Your task to perform on an android device: Go to Yahoo.com Image 0: 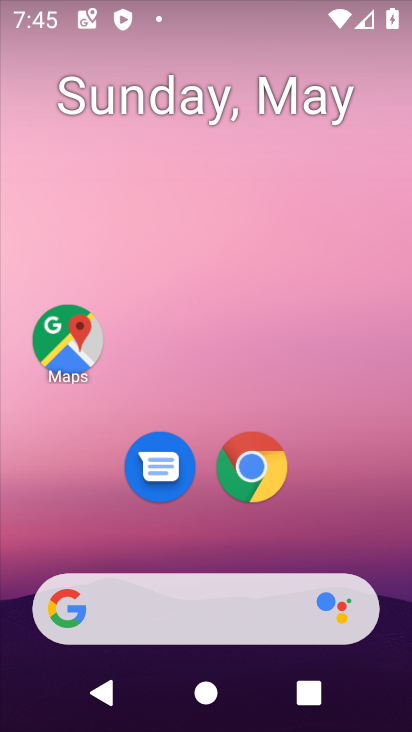
Step 0: click (261, 471)
Your task to perform on an android device: Go to Yahoo.com Image 1: 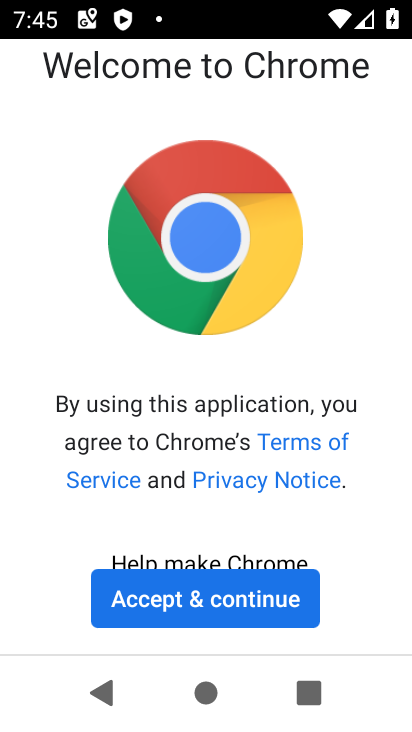
Step 1: click (214, 594)
Your task to perform on an android device: Go to Yahoo.com Image 2: 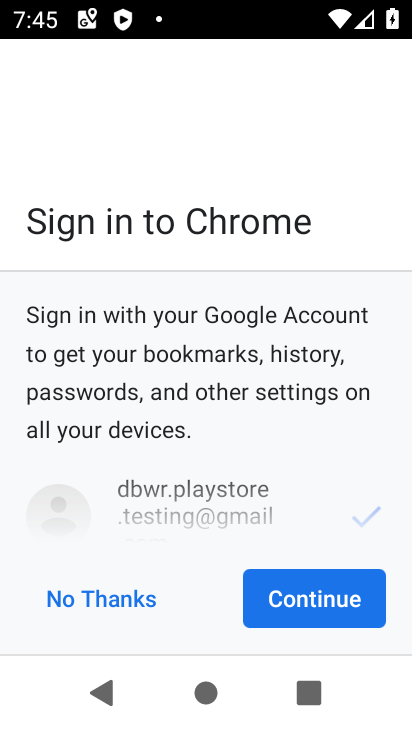
Step 2: click (90, 594)
Your task to perform on an android device: Go to Yahoo.com Image 3: 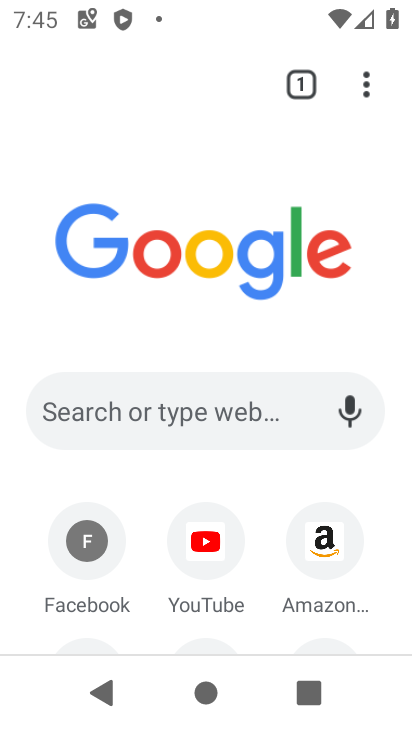
Step 3: drag from (384, 618) to (384, 358)
Your task to perform on an android device: Go to Yahoo.com Image 4: 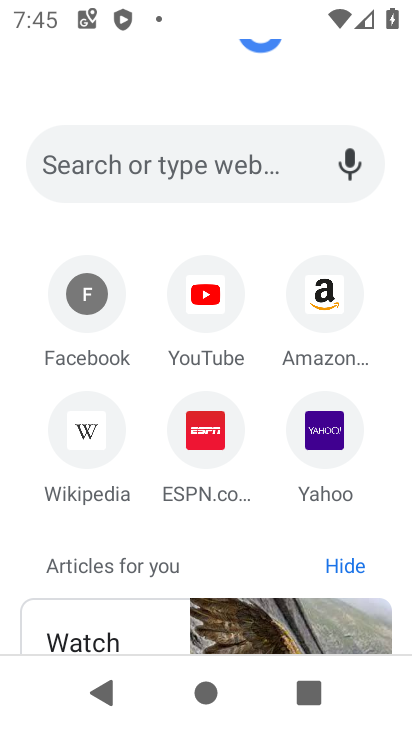
Step 4: click (320, 429)
Your task to perform on an android device: Go to Yahoo.com Image 5: 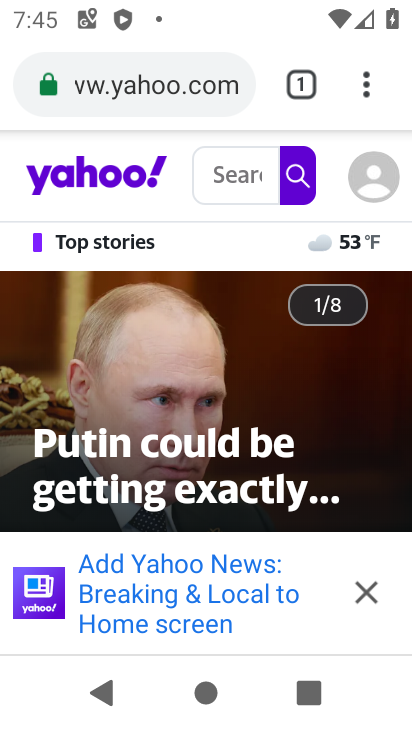
Step 5: task complete